Your task to perform on an android device: delete browsing data in the chrome app Image 0: 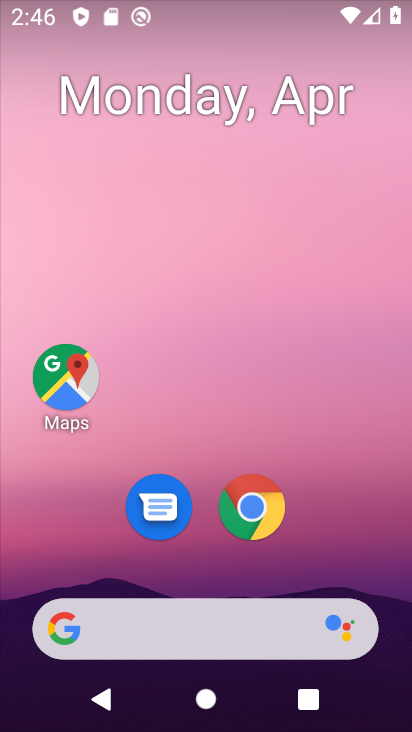
Step 0: click (273, 528)
Your task to perform on an android device: delete browsing data in the chrome app Image 1: 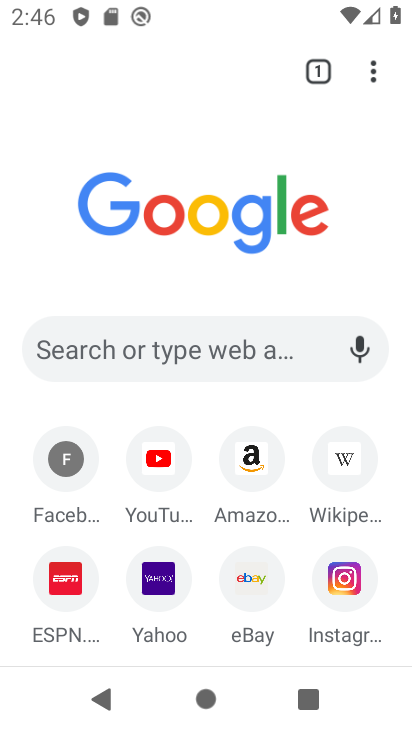
Step 1: click (372, 93)
Your task to perform on an android device: delete browsing data in the chrome app Image 2: 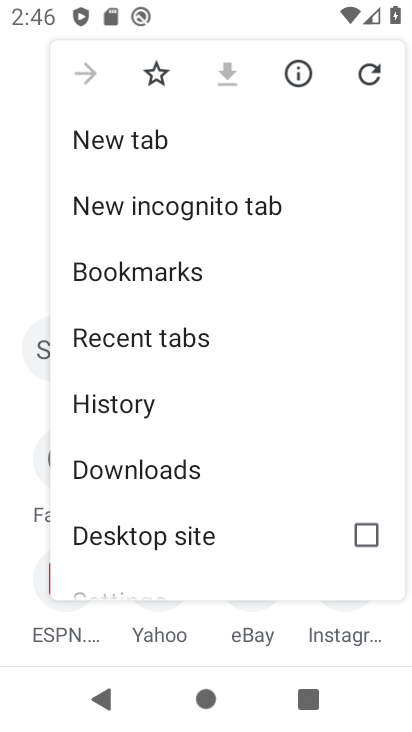
Step 2: click (183, 403)
Your task to perform on an android device: delete browsing data in the chrome app Image 3: 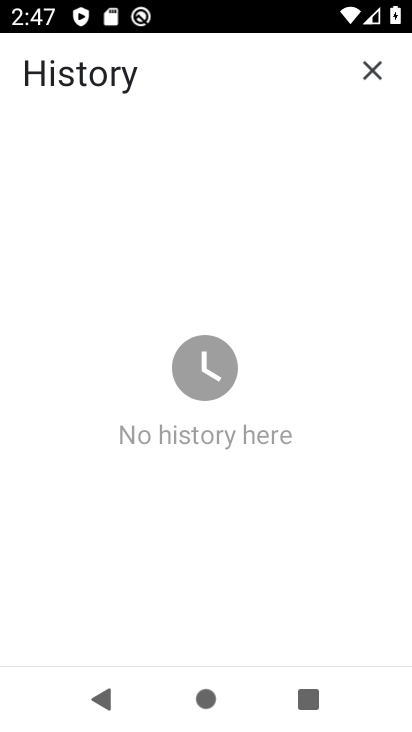
Step 3: task complete